Your task to perform on an android device: add a contact in the contacts app Image 0: 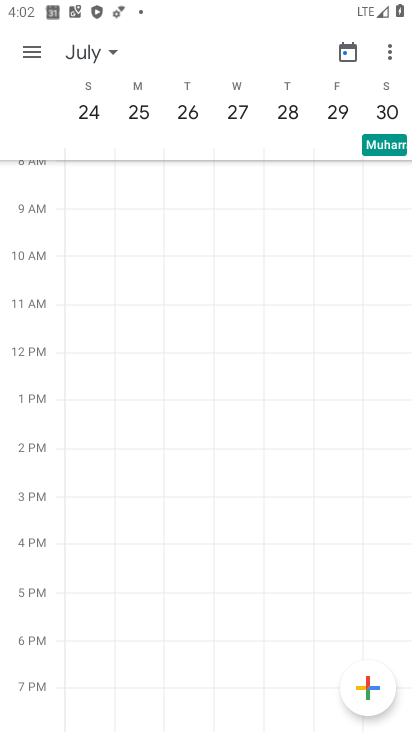
Step 0: press home button
Your task to perform on an android device: add a contact in the contacts app Image 1: 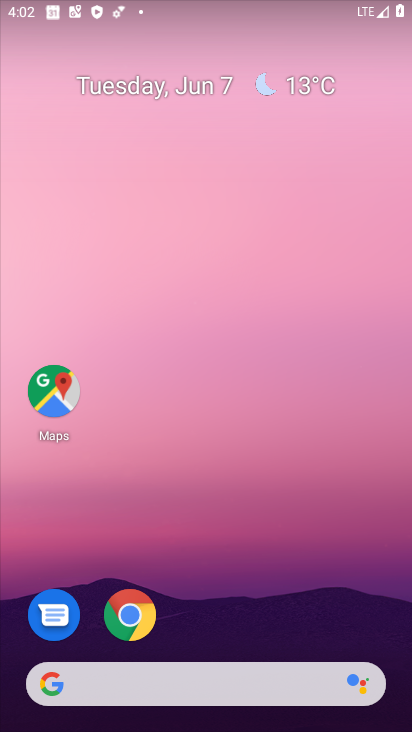
Step 1: drag from (241, 727) to (239, 256)
Your task to perform on an android device: add a contact in the contacts app Image 2: 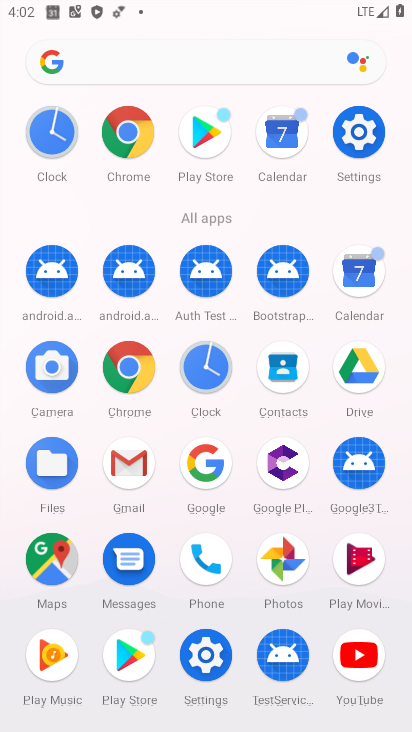
Step 2: click (283, 357)
Your task to perform on an android device: add a contact in the contacts app Image 3: 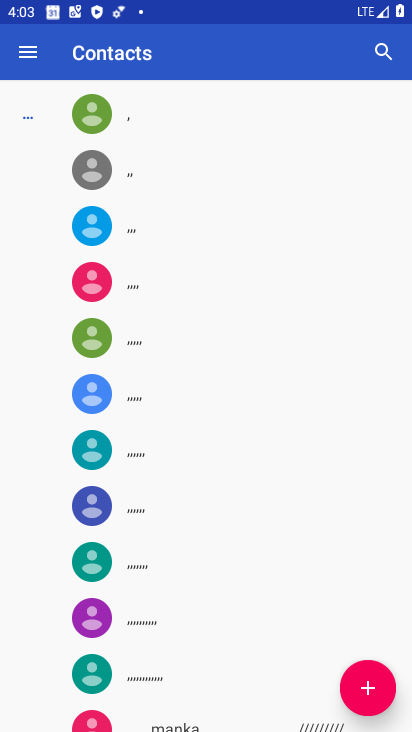
Step 3: click (367, 688)
Your task to perform on an android device: add a contact in the contacts app Image 4: 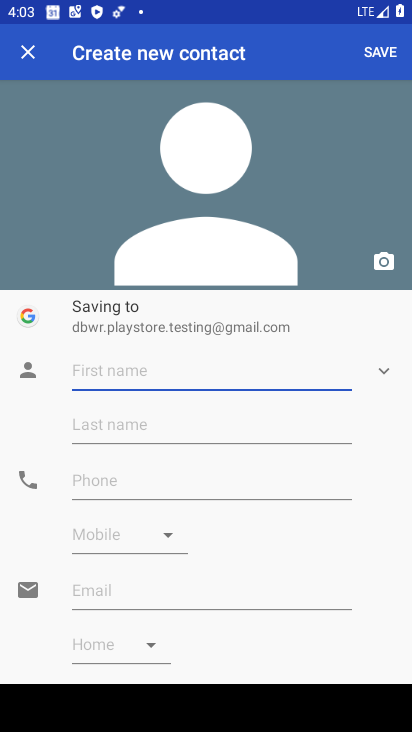
Step 4: type "nnnneeti"
Your task to perform on an android device: add a contact in the contacts app Image 5: 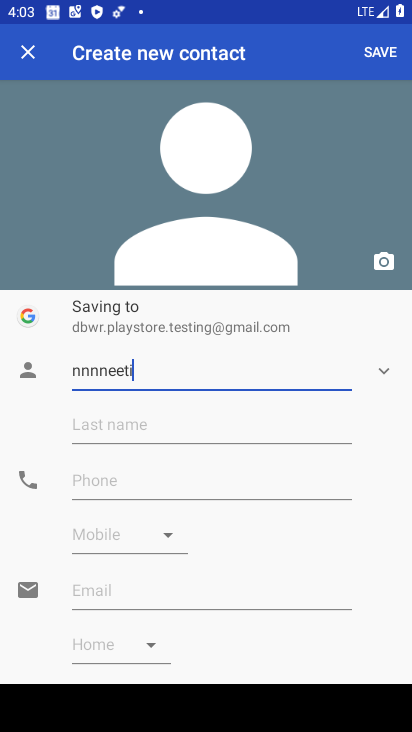
Step 5: click (98, 480)
Your task to perform on an android device: add a contact in the contacts app Image 6: 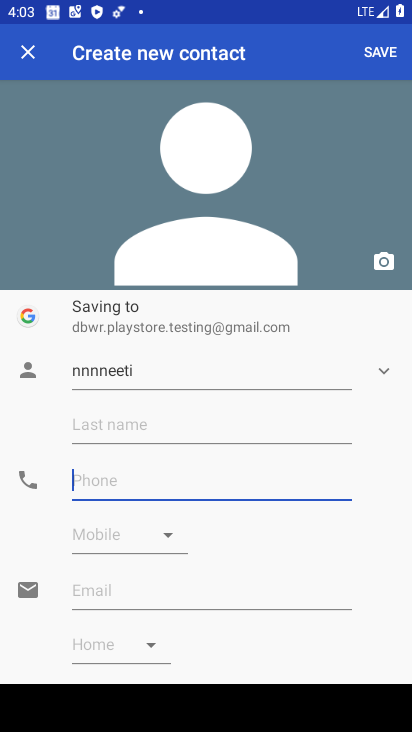
Step 6: type "78787"
Your task to perform on an android device: add a contact in the contacts app Image 7: 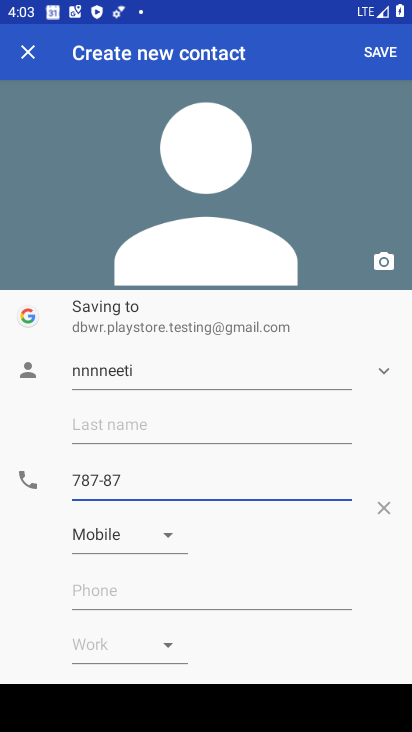
Step 7: click (381, 53)
Your task to perform on an android device: add a contact in the contacts app Image 8: 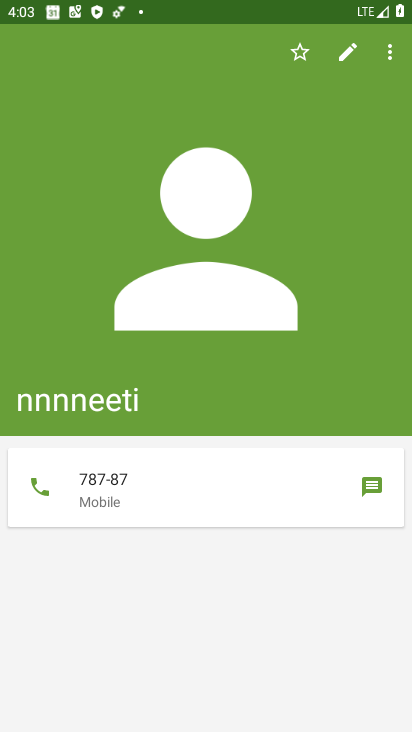
Step 8: task complete